Your task to perform on an android device: Show me productivity apps on the Play Store Image 0: 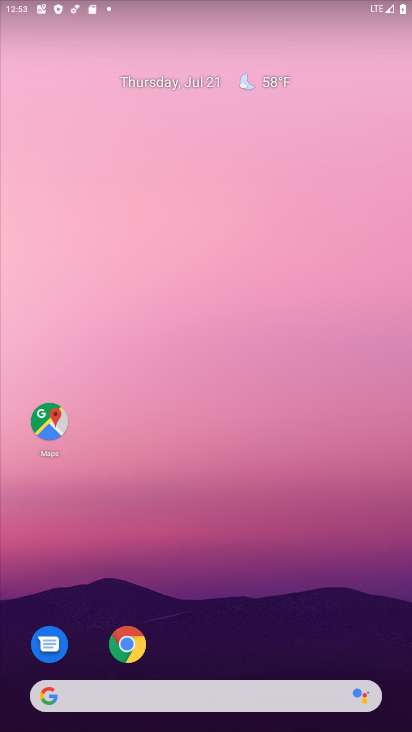
Step 0: drag from (340, 587) to (365, 103)
Your task to perform on an android device: Show me productivity apps on the Play Store Image 1: 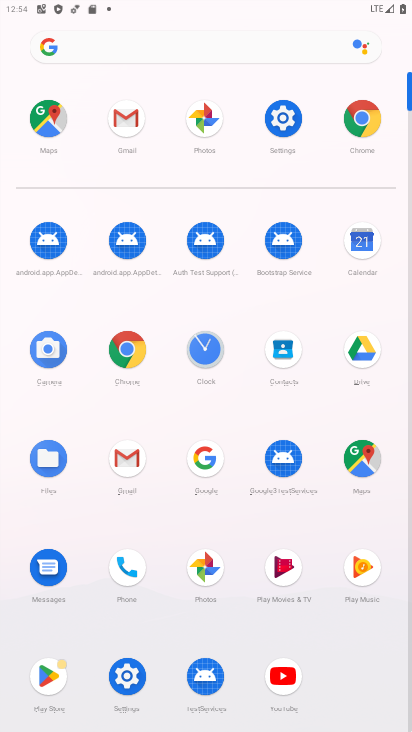
Step 1: click (54, 676)
Your task to perform on an android device: Show me productivity apps on the Play Store Image 2: 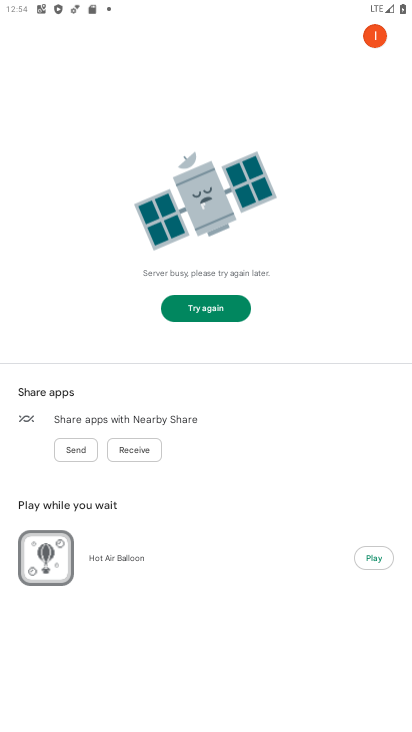
Step 2: task complete